Your task to perform on an android device: turn on priority inbox in the gmail app Image 0: 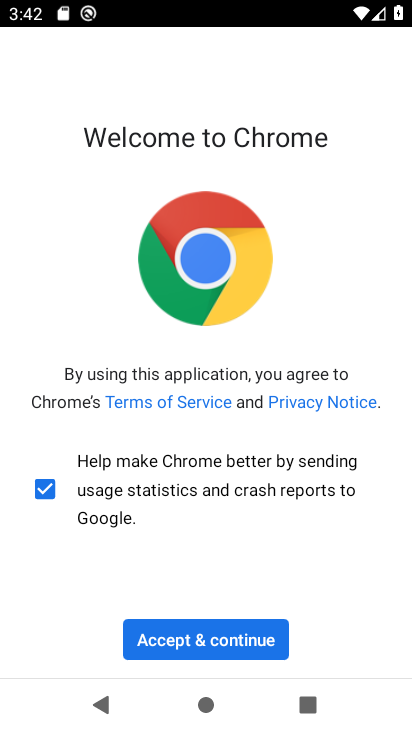
Step 0: press home button
Your task to perform on an android device: turn on priority inbox in the gmail app Image 1: 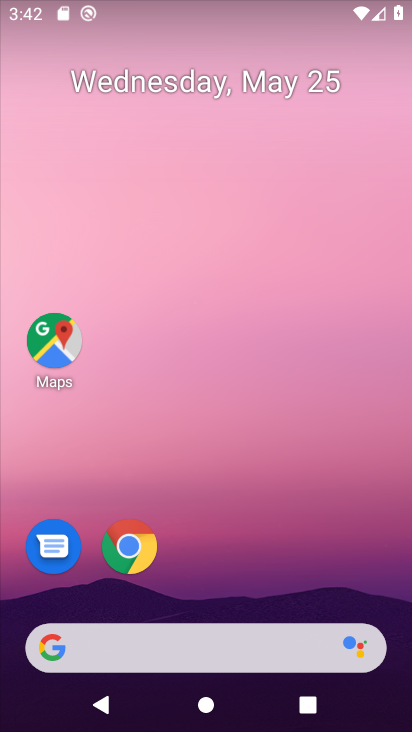
Step 1: drag from (239, 607) to (189, 156)
Your task to perform on an android device: turn on priority inbox in the gmail app Image 2: 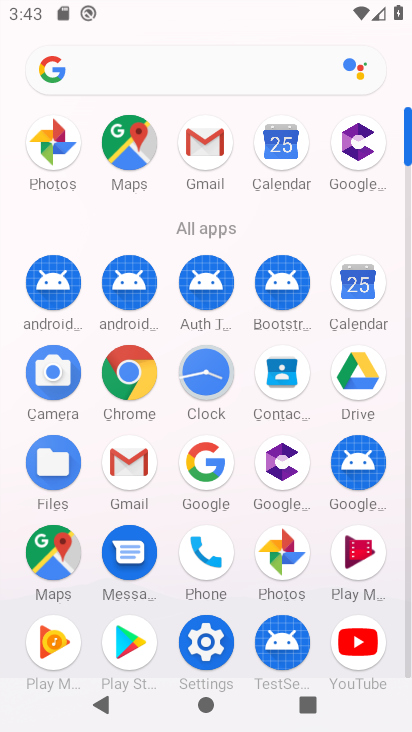
Step 2: click (206, 153)
Your task to perform on an android device: turn on priority inbox in the gmail app Image 3: 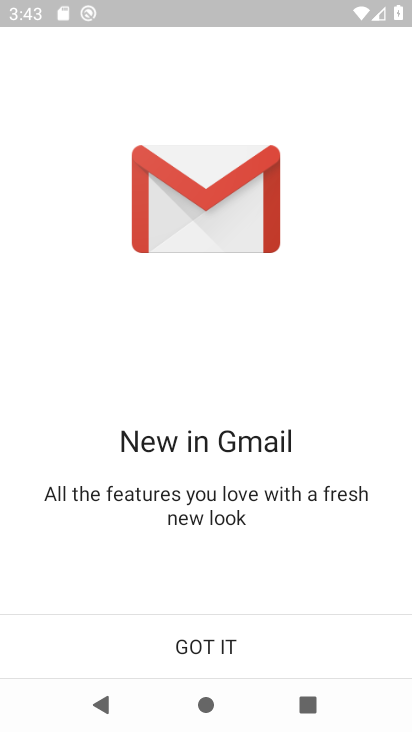
Step 3: click (220, 646)
Your task to perform on an android device: turn on priority inbox in the gmail app Image 4: 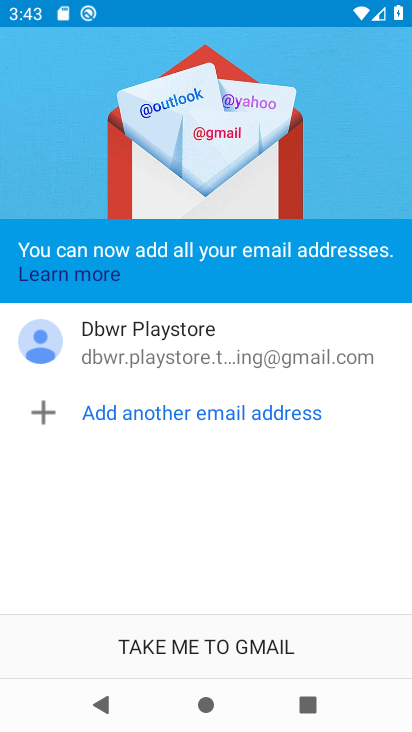
Step 4: click (220, 646)
Your task to perform on an android device: turn on priority inbox in the gmail app Image 5: 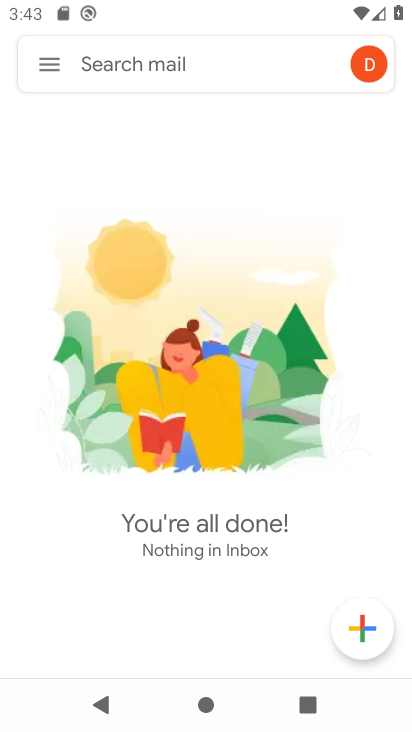
Step 5: click (56, 66)
Your task to perform on an android device: turn on priority inbox in the gmail app Image 6: 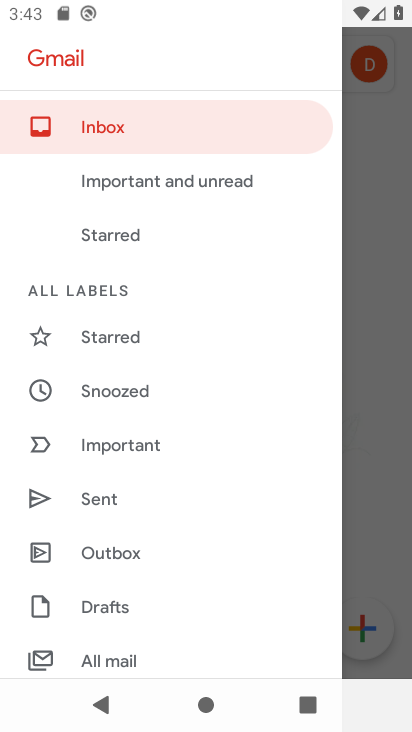
Step 6: drag from (167, 631) to (111, 213)
Your task to perform on an android device: turn on priority inbox in the gmail app Image 7: 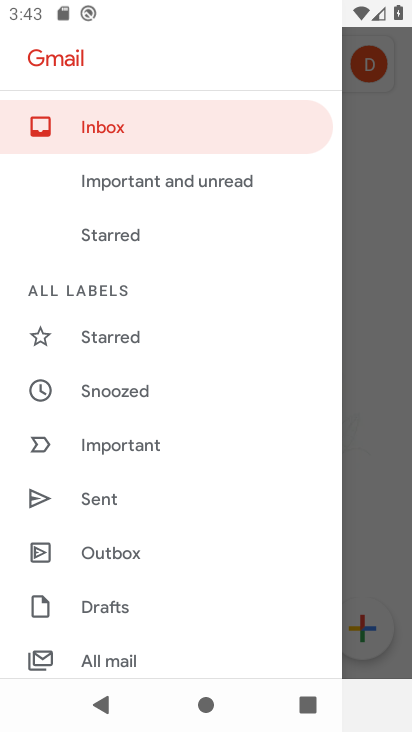
Step 7: drag from (138, 655) to (112, 290)
Your task to perform on an android device: turn on priority inbox in the gmail app Image 8: 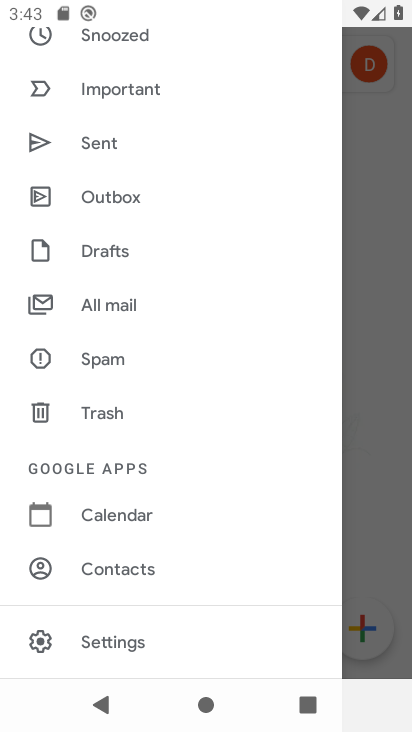
Step 8: click (118, 649)
Your task to perform on an android device: turn on priority inbox in the gmail app Image 9: 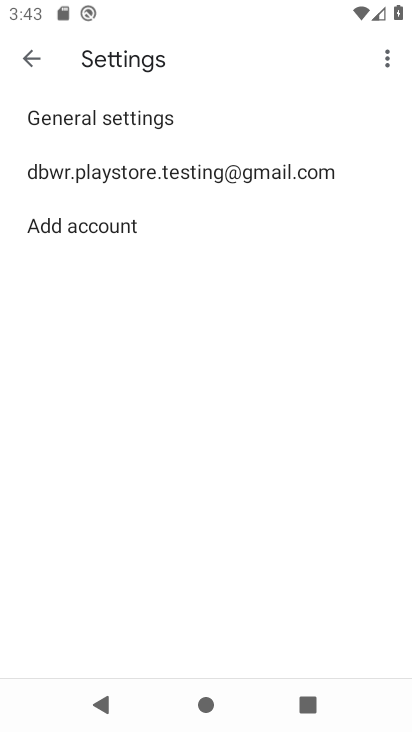
Step 9: click (166, 165)
Your task to perform on an android device: turn on priority inbox in the gmail app Image 10: 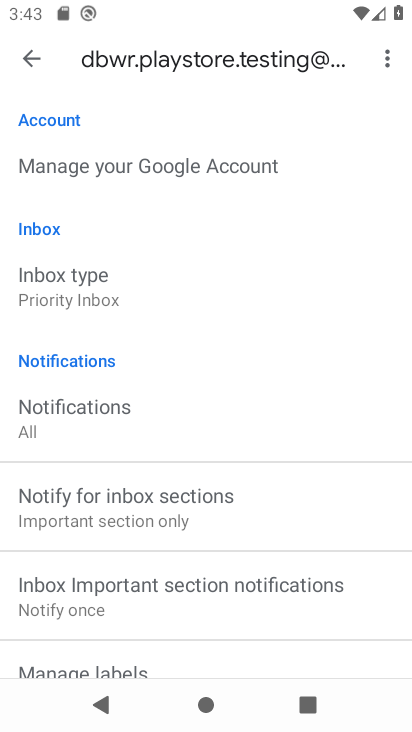
Step 10: click (233, 292)
Your task to perform on an android device: turn on priority inbox in the gmail app Image 11: 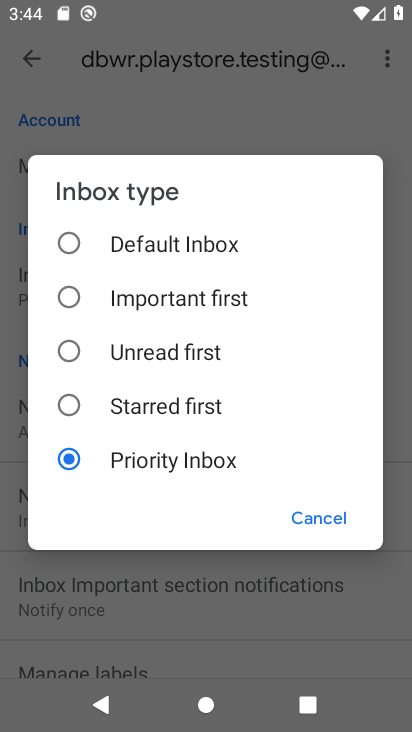
Step 11: task complete